Your task to perform on an android device: Set the phone to "Do not disturb". Image 0: 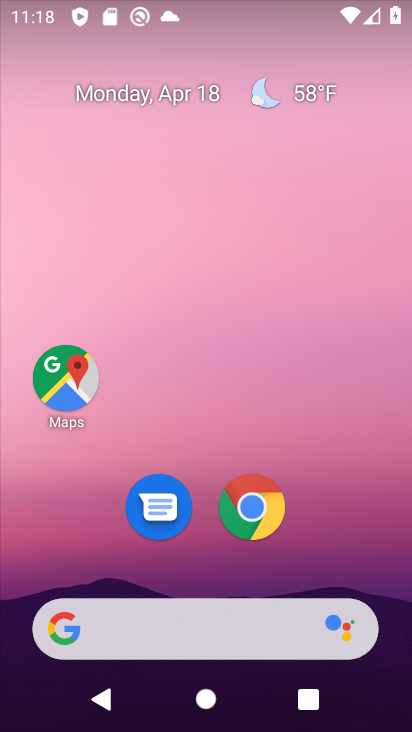
Step 0: drag from (171, 579) to (137, 141)
Your task to perform on an android device: Set the phone to "Do not disturb". Image 1: 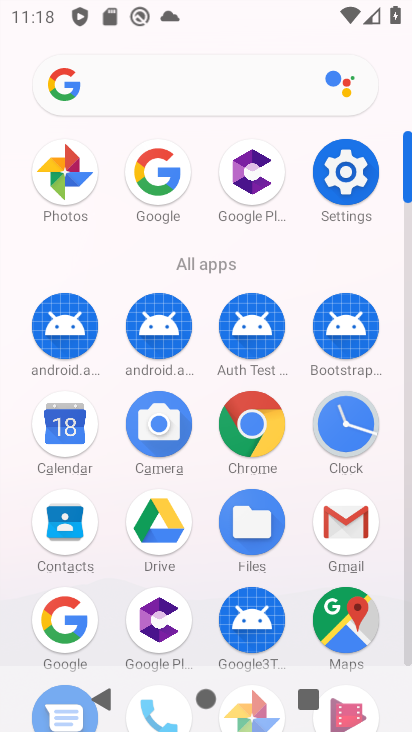
Step 1: click (356, 165)
Your task to perform on an android device: Set the phone to "Do not disturb". Image 2: 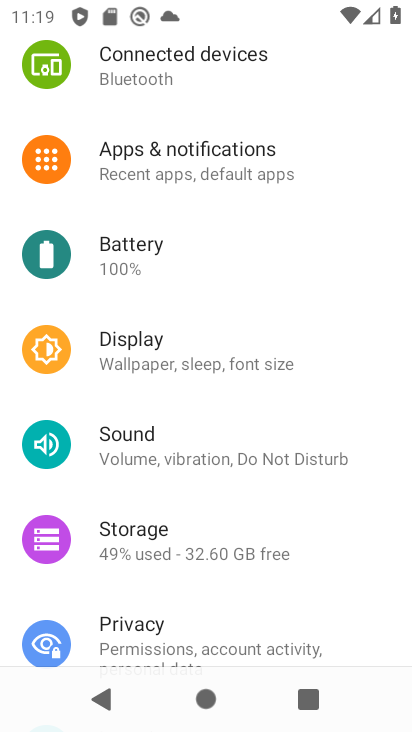
Step 2: click (145, 445)
Your task to perform on an android device: Set the phone to "Do not disturb". Image 3: 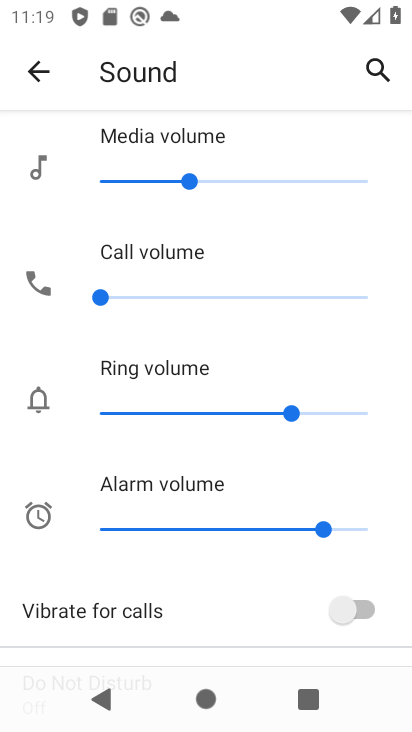
Step 3: drag from (181, 573) to (147, 66)
Your task to perform on an android device: Set the phone to "Do not disturb". Image 4: 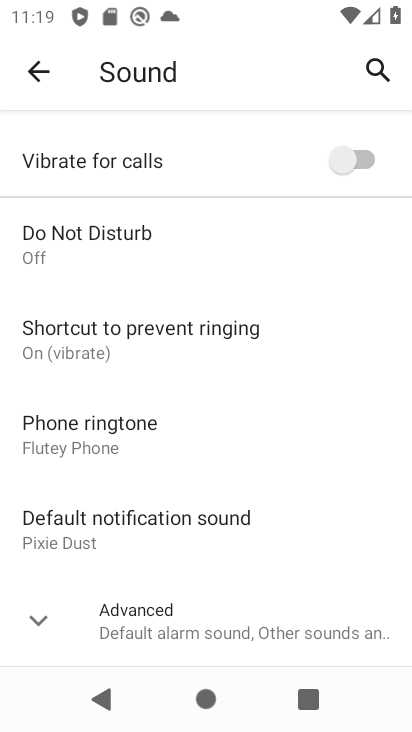
Step 4: click (102, 246)
Your task to perform on an android device: Set the phone to "Do not disturb". Image 5: 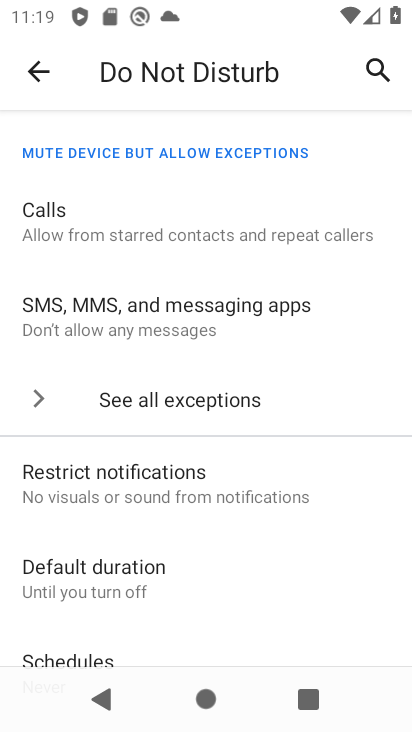
Step 5: drag from (133, 486) to (38, 1)
Your task to perform on an android device: Set the phone to "Do not disturb". Image 6: 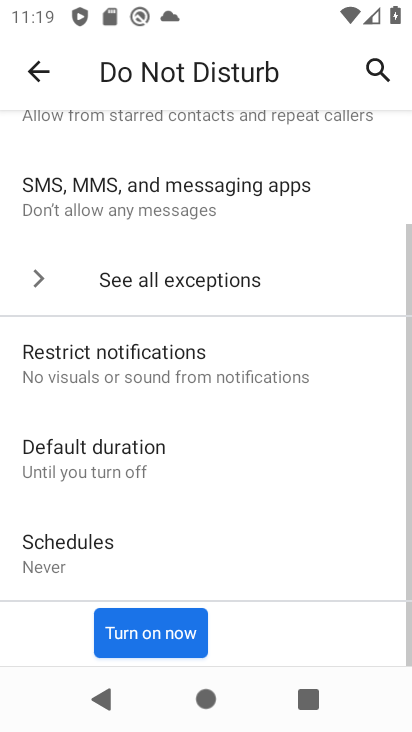
Step 6: click (149, 620)
Your task to perform on an android device: Set the phone to "Do not disturb". Image 7: 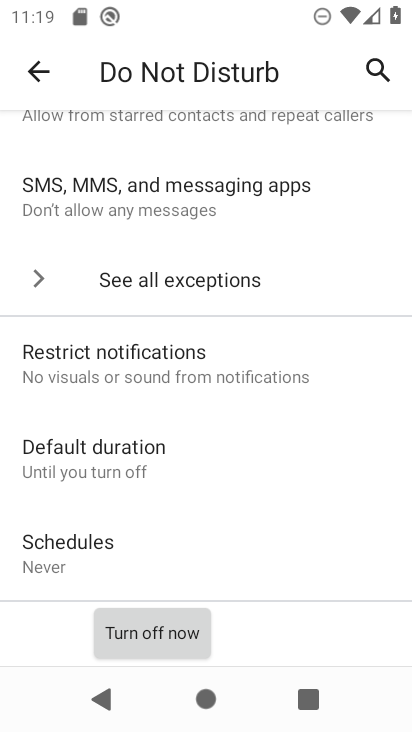
Step 7: task complete